Your task to perform on an android device: Is it going to rain today? Image 0: 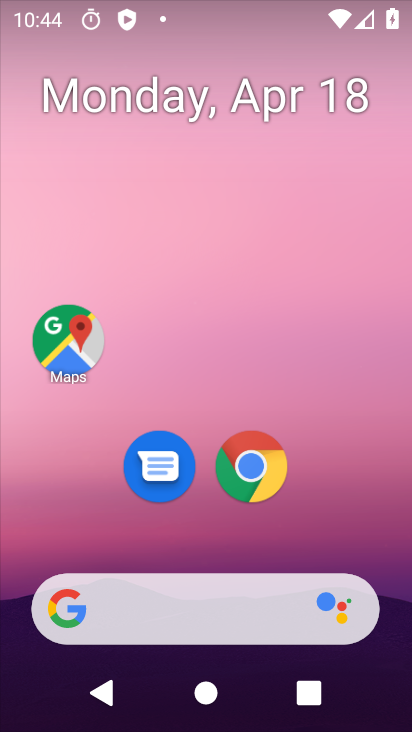
Step 0: drag from (219, 574) to (226, 175)
Your task to perform on an android device: Is it going to rain today? Image 1: 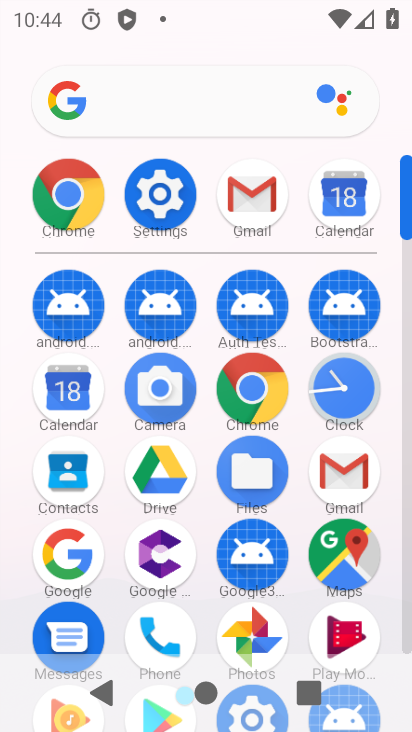
Step 1: click (226, 175)
Your task to perform on an android device: Is it going to rain today? Image 2: 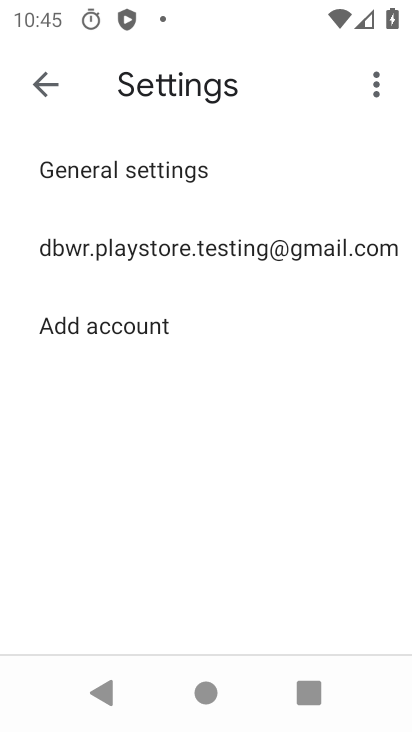
Step 2: press home button
Your task to perform on an android device: Is it going to rain today? Image 3: 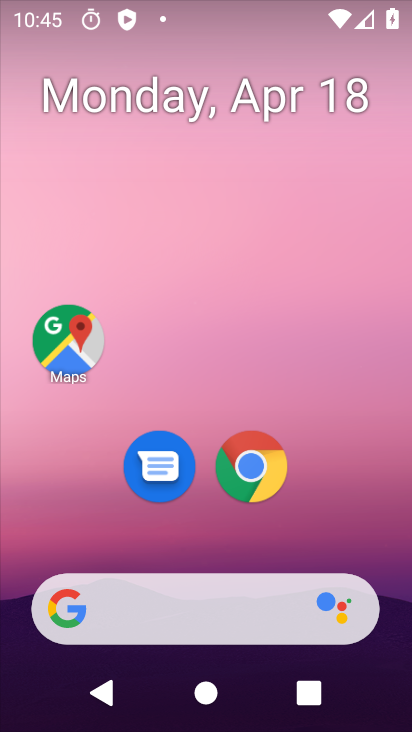
Step 3: drag from (256, 481) to (241, 249)
Your task to perform on an android device: Is it going to rain today? Image 4: 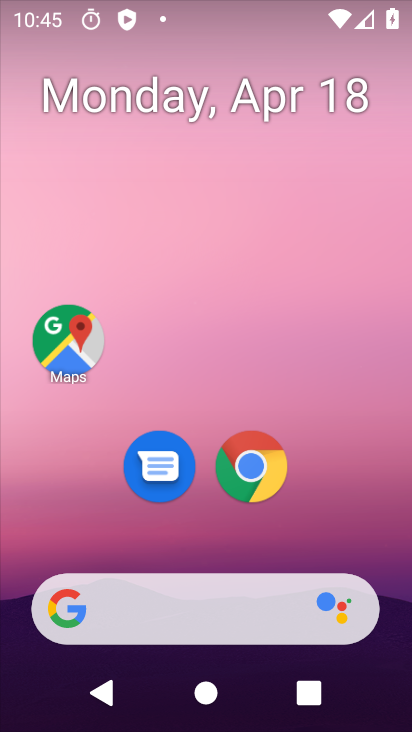
Step 4: drag from (291, 549) to (275, 311)
Your task to perform on an android device: Is it going to rain today? Image 5: 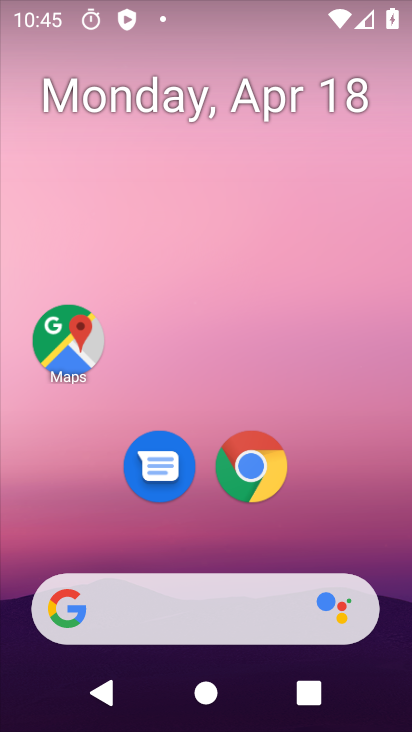
Step 5: drag from (253, 655) to (312, 108)
Your task to perform on an android device: Is it going to rain today? Image 6: 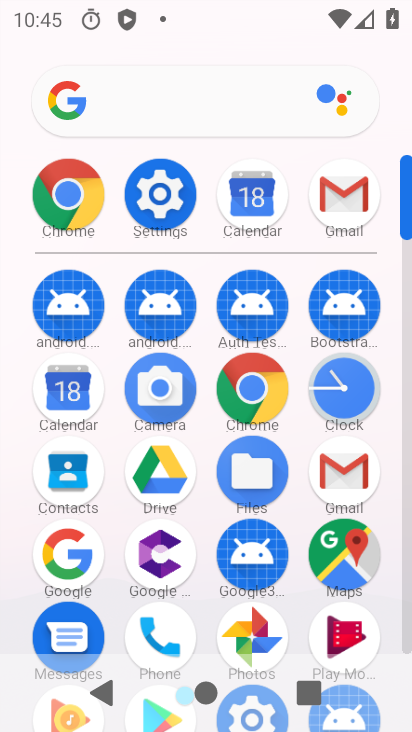
Step 6: drag from (220, 577) to (228, 194)
Your task to perform on an android device: Is it going to rain today? Image 7: 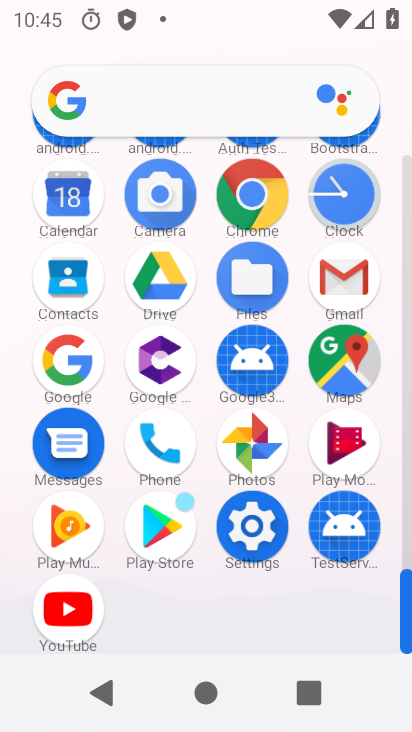
Step 7: click (72, 383)
Your task to perform on an android device: Is it going to rain today? Image 8: 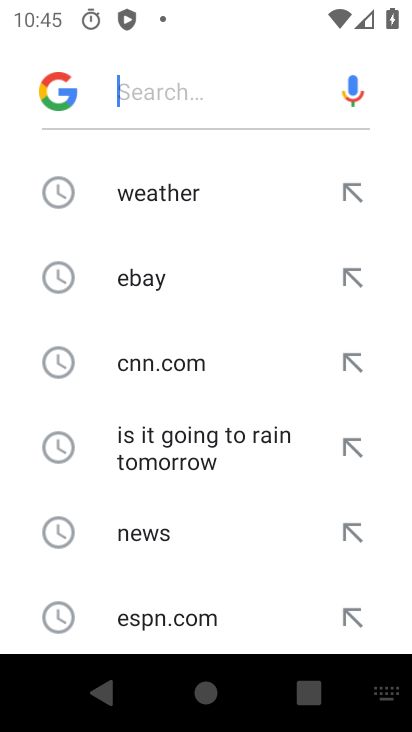
Step 8: click (200, 192)
Your task to perform on an android device: Is it going to rain today? Image 9: 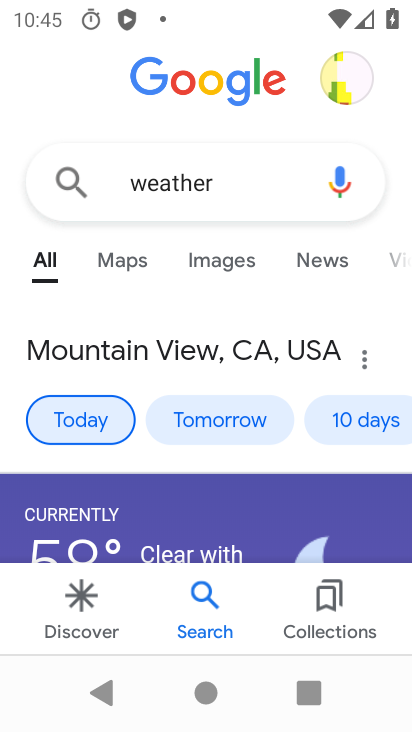
Step 9: task complete